Your task to perform on an android device: turn on airplane mode Image 0: 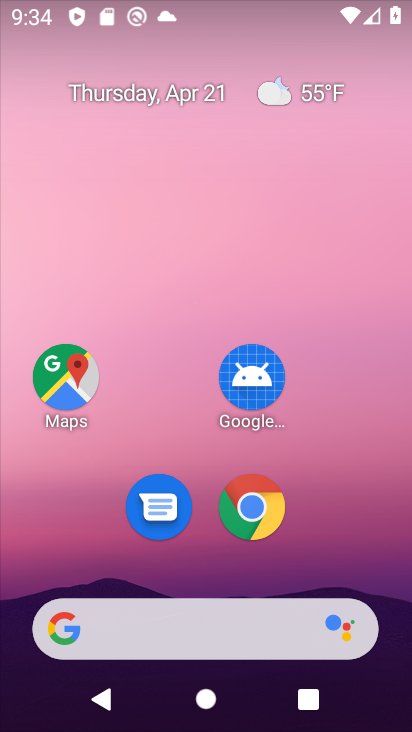
Step 0: drag from (275, 559) to (321, 194)
Your task to perform on an android device: turn on airplane mode Image 1: 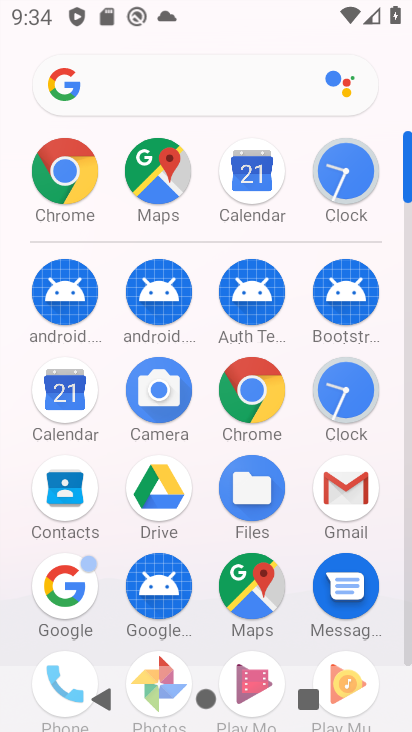
Step 1: drag from (187, 637) to (246, 204)
Your task to perform on an android device: turn on airplane mode Image 2: 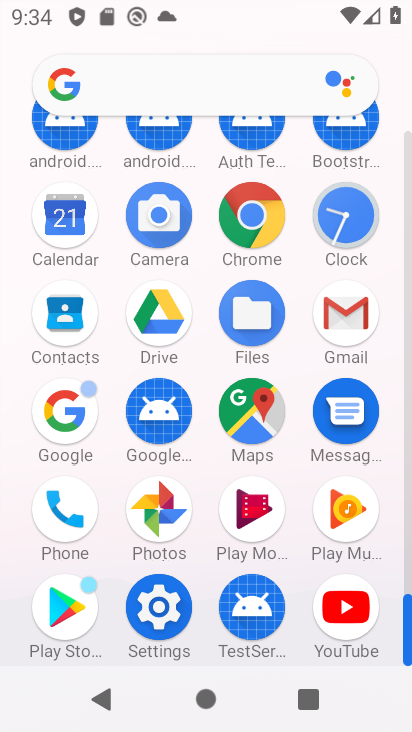
Step 2: click (153, 592)
Your task to perform on an android device: turn on airplane mode Image 3: 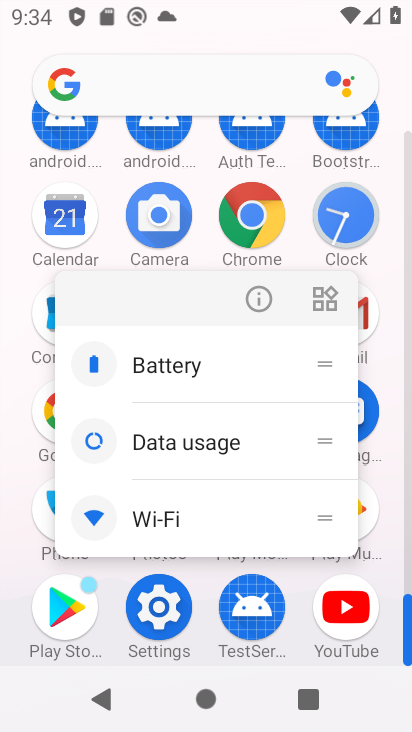
Step 3: click (153, 592)
Your task to perform on an android device: turn on airplane mode Image 4: 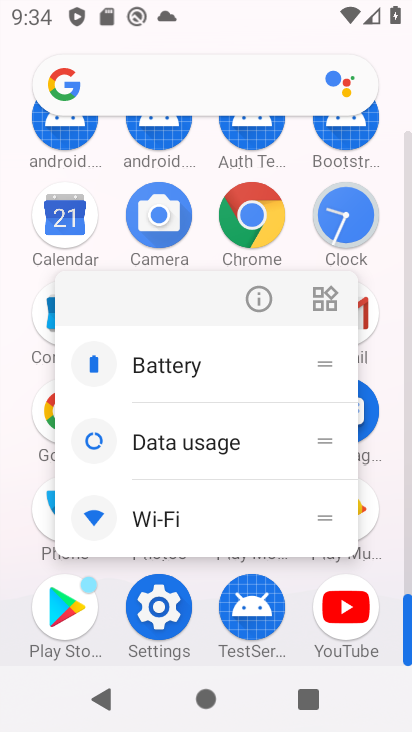
Step 4: click (153, 592)
Your task to perform on an android device: turn on airplane mode Image 5: 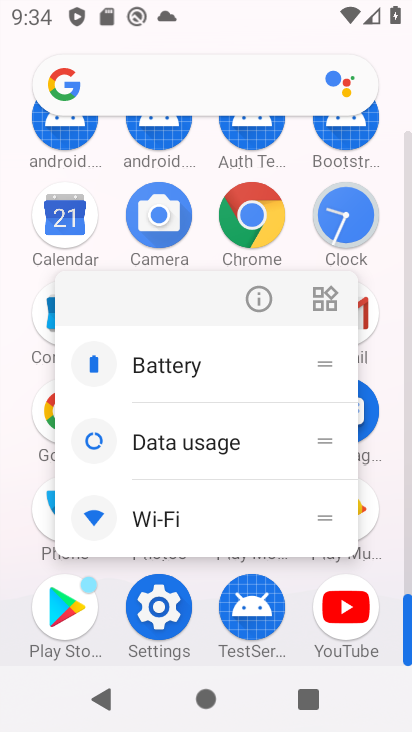
Step 5: click (153, 592)
Your task to perform on an android device: turn on airplane mode Image 6: 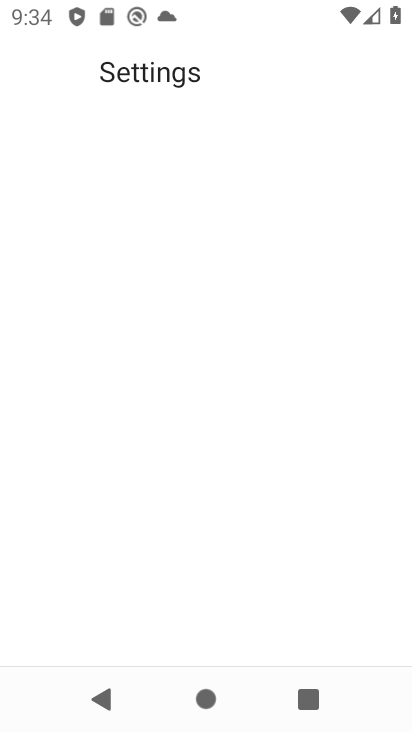
Step 6: click (155, 568)
Your task to perform on an android device: turn on airplane mode Image 7: 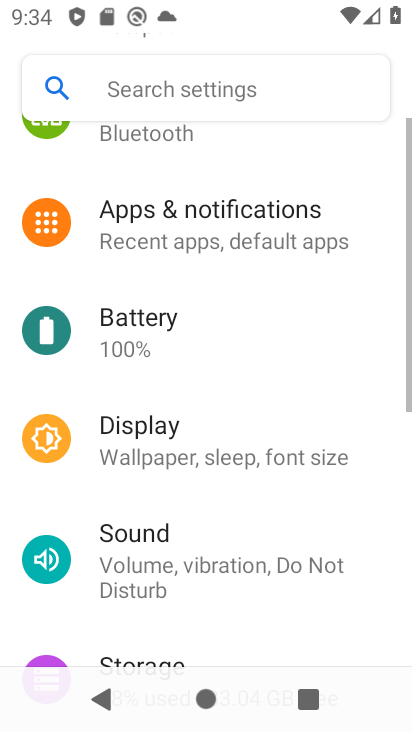
Step 7: drag from (221, 165) to (215, 667)
Your task to perform on an android device: turn on airplane mode Image 8: 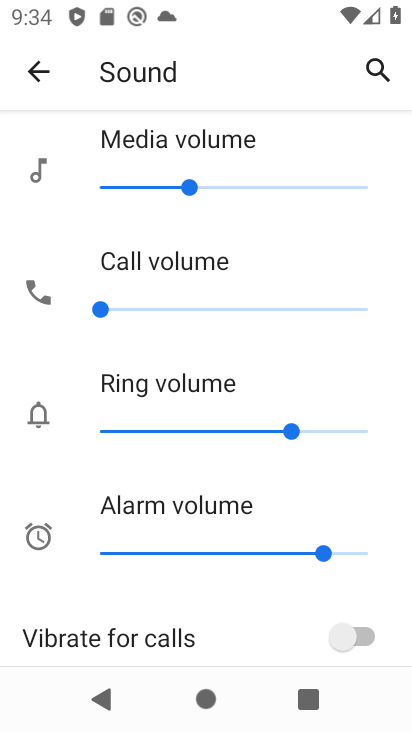
Step 8: press back button
Your task to perform on an android device: turn on airplane mode Image 9: 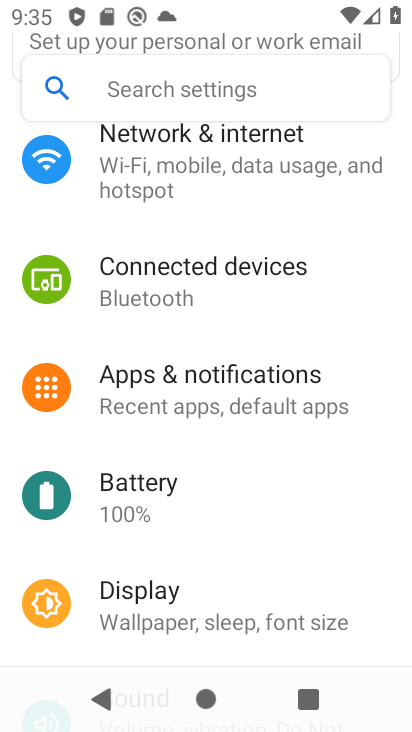
Step 9: click (248, 151)
Your task to perform on an android device: turn on airplane mode Image 10: 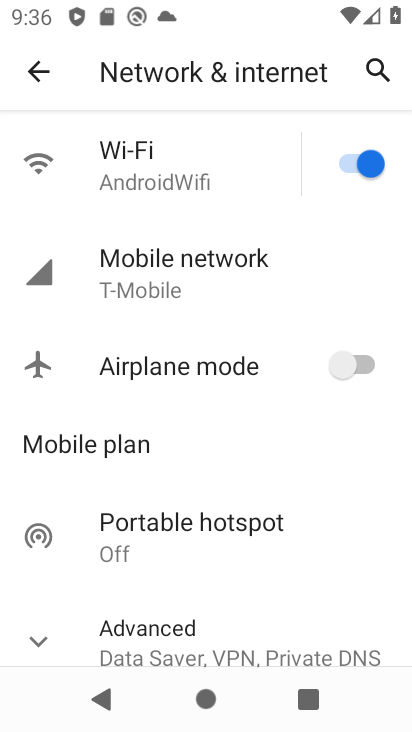
Step 10: click (361, 359)
Your task to perform on an android device: turn on airplane mode Image 11: 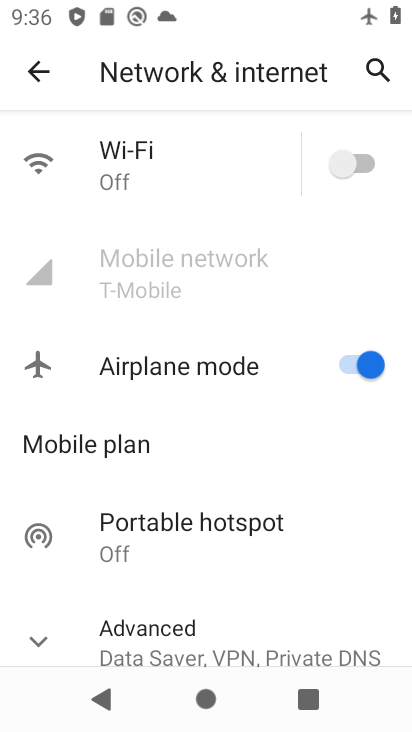
Step 11: task complete